Your task to perform on an android device: manage bookmarks in the chrome app Image 0: 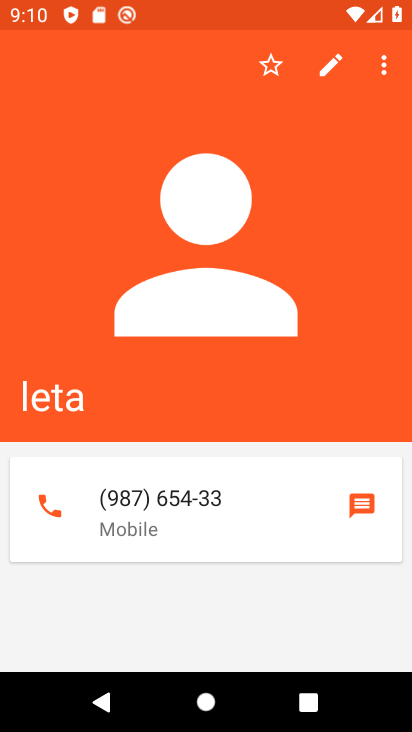
Step 0: press home button
Your task to perform on an android device: manage bookmarks in the chrome app Image 1: 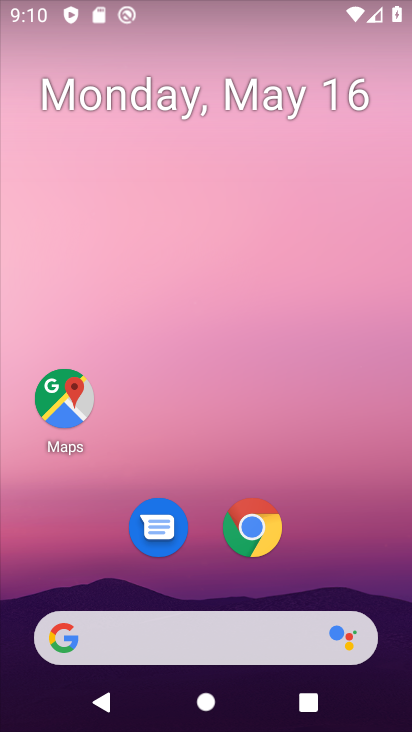
Step 1: click (260, 525)
Your task to perform on an android device: manage bookmarks in the chrome app Image 2: 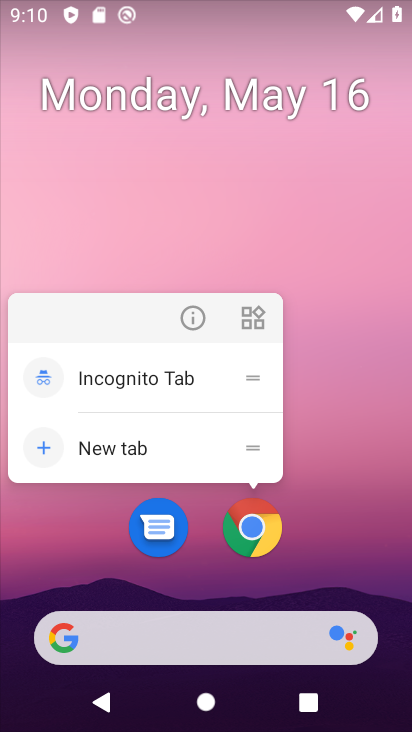
Step 2: click (245, 531)
Your task to perform on an android device: manage bookmarks in the chrome app Image 3: 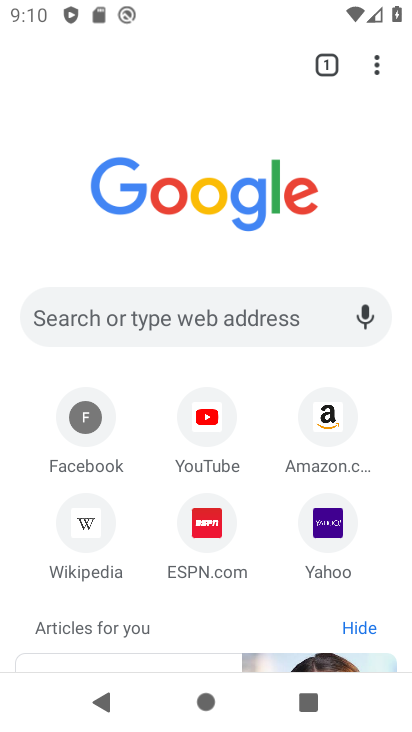
Step 3: click (377, 68)
Your task to perform on an android device: manage bookmarks in the chrome app Image 4: 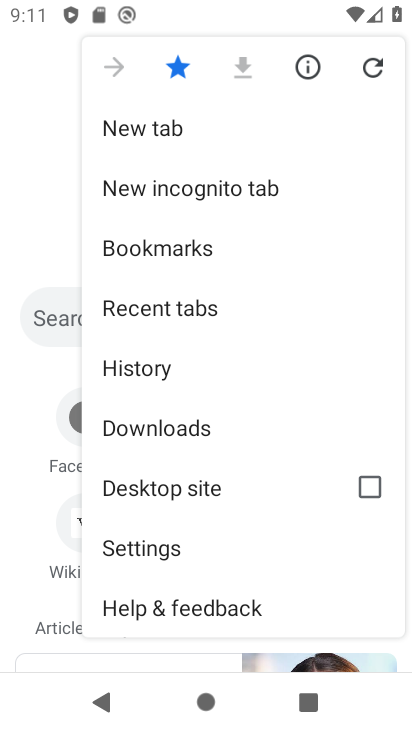
Step 4: click (166, 253)
Your task to perform on an android device: manage bookmarks in the chrome app Image 5: 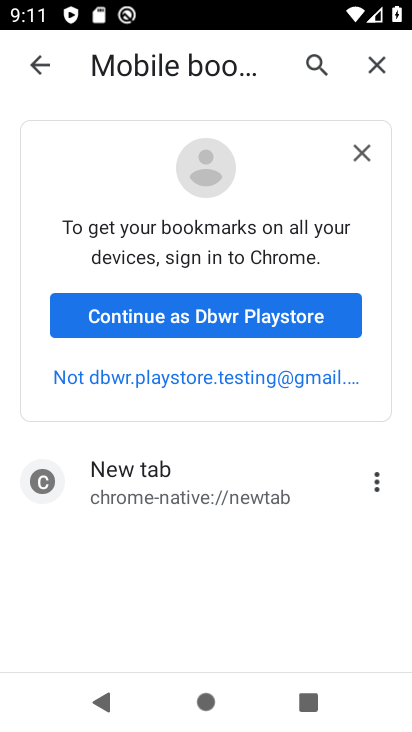
Step 5: click (162, 315)
Your task to perform on an android device: manage bookmarks in the chrome app Image 6: 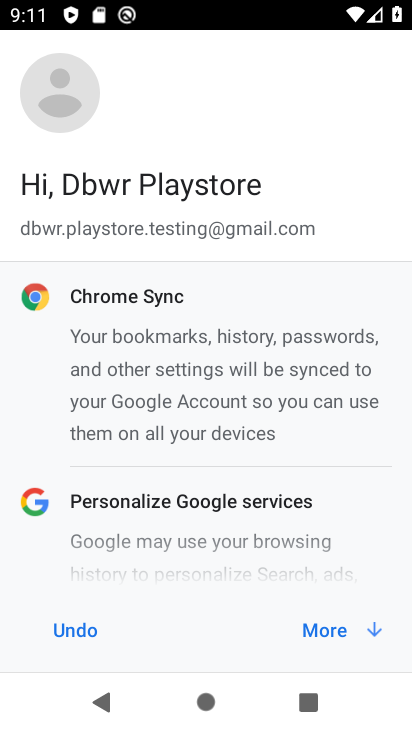
Step 6: click (343, 643)
Your task to perform on an android device: manage bookmarks in the chrome app Image 7: 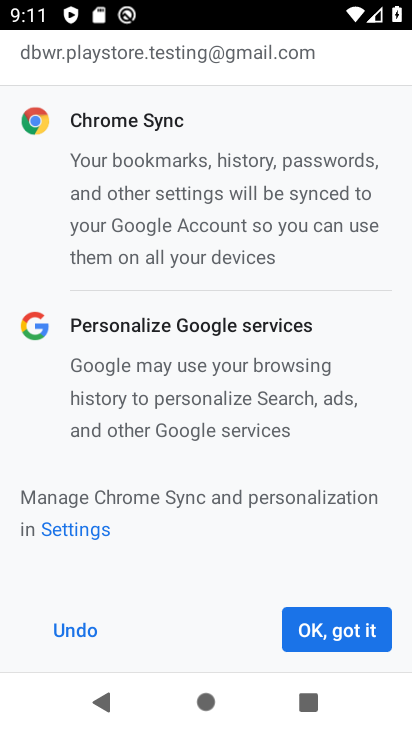
Step 7: click (343, 643)
Your task to perform on an android device: manage bookmarks in the chrome app Image 8: 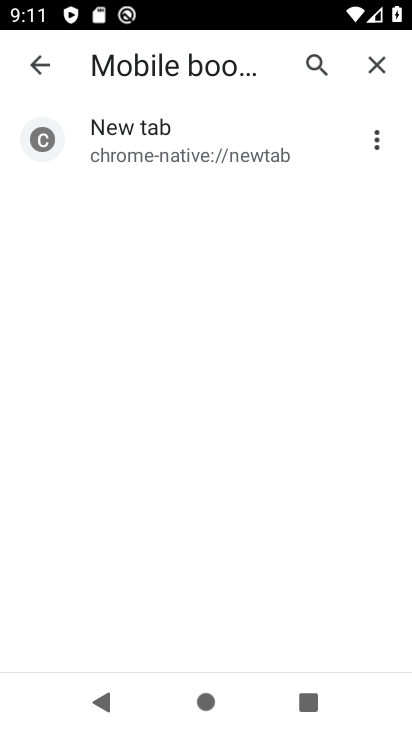
Step 8: click (375, 136)
Your task to perform on an android device: manage bookmarks in the chrome app Image 9: 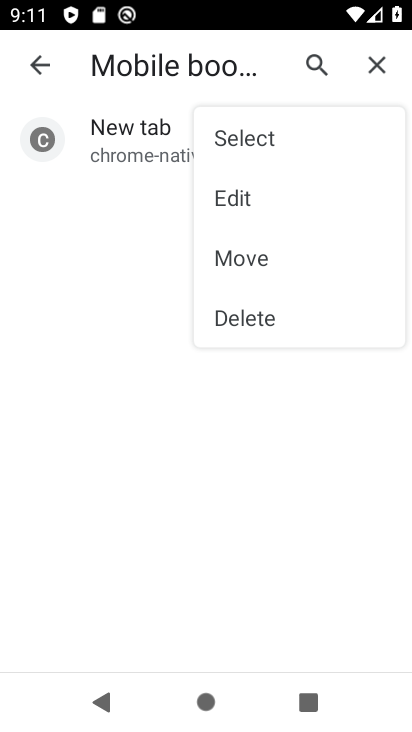
Step 9: click (252, 325)
Your task to perform on an android device: manage bookmarks in the chrome app Image 10: 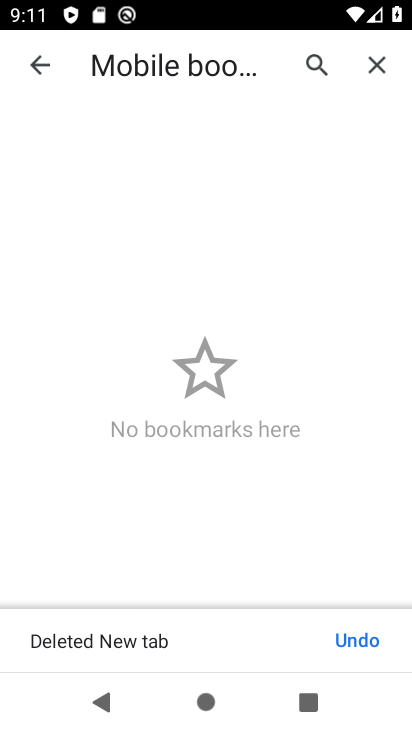
Step 10: task complete